Your task to perform on an android device: What's the weather going to be tomorrow? Image 0: 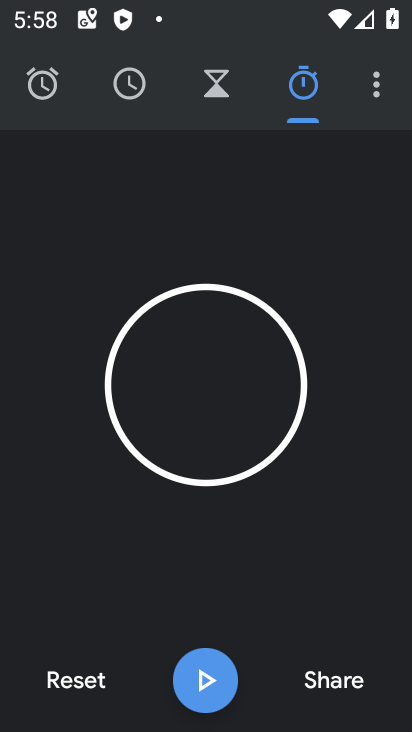
Step 0: press home button
Your task to perform on an android device: What's the weather going to be tomorrow? Image 1: 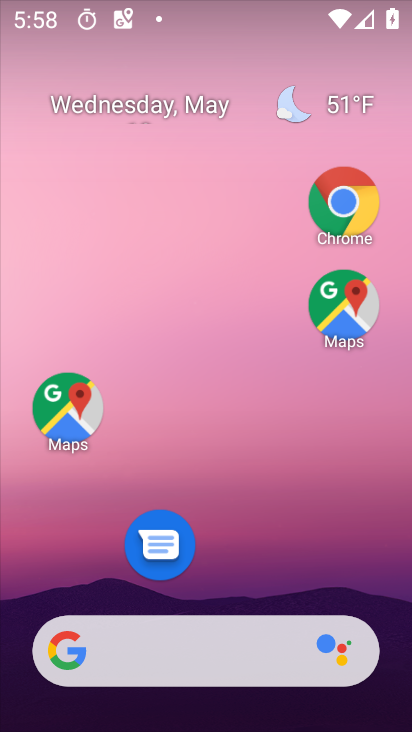
Step 1: click (348, 303)
Your task to perform on an android device: What's the weather going to be tomorrow? Image 2: 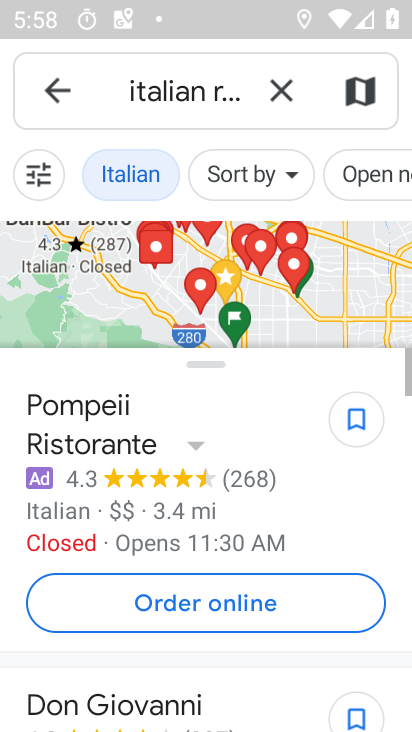
Step 2: press home button
Your task to perform on an android device: What's the weather going to be tomorrow? Image 3: 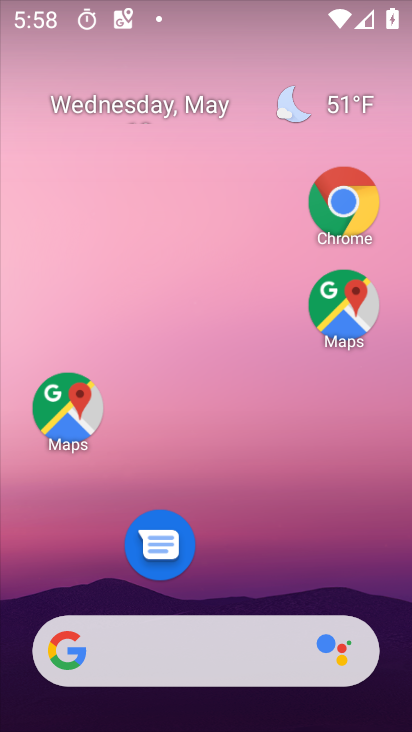
Step 3: click (179, 644)
Your task to perform on an android device: What's the weather going to be tomorrow? Image 4: 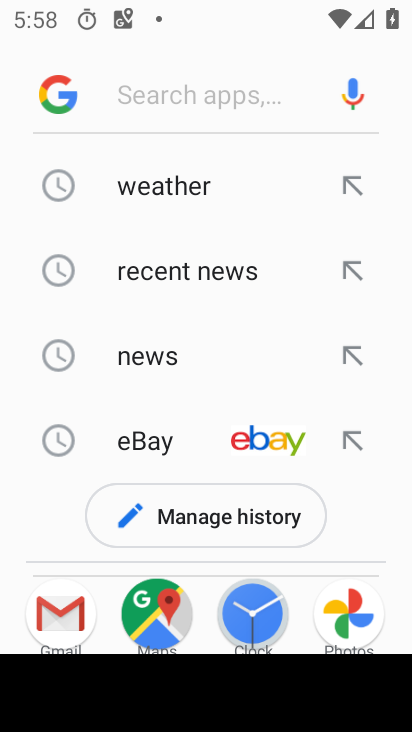
Step 4: click (172, 190)
Your task to perform on an android device: What's the weather going to be tomorrow? Image 5: 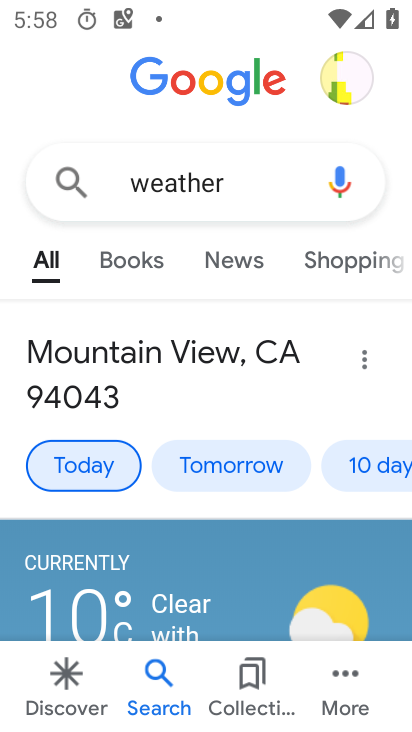
Step 5: click (220, 466)
Your task to perform on an android device: What's the weather going to be tomorrow? Image 6: 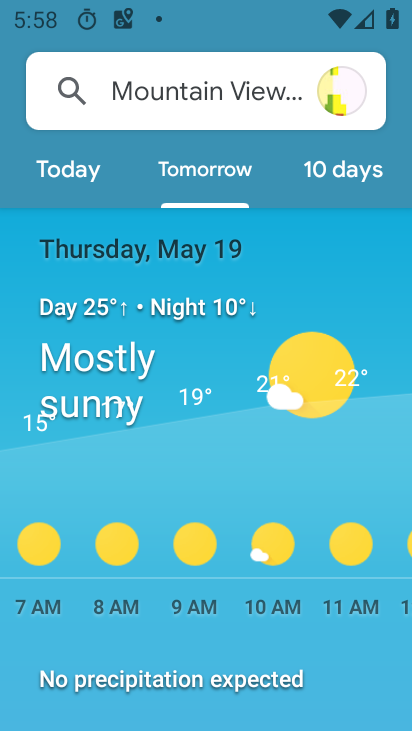
Step 6: task complete